Your task to perform on an android device: delete a single message in the gmail app Image 0: 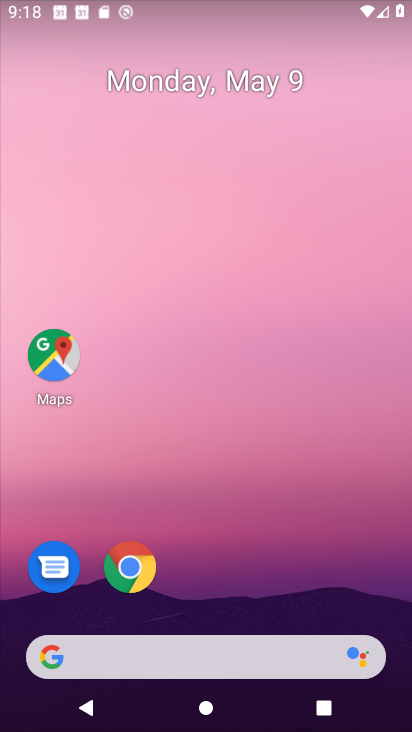
Step 0: drag from (205, 566) to (251, 142)
Your task to perform on an android device: delete a single message in the gmail app Image 1: 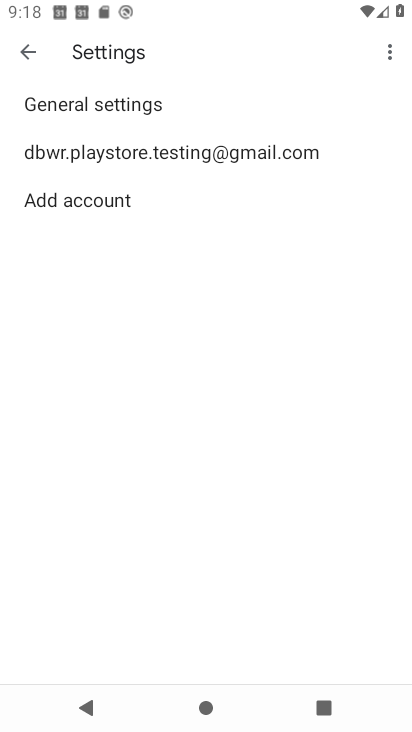
Step 1: click (17, 48)
Your task to perform on an android device: delete a single message in the gmail app Image 2: 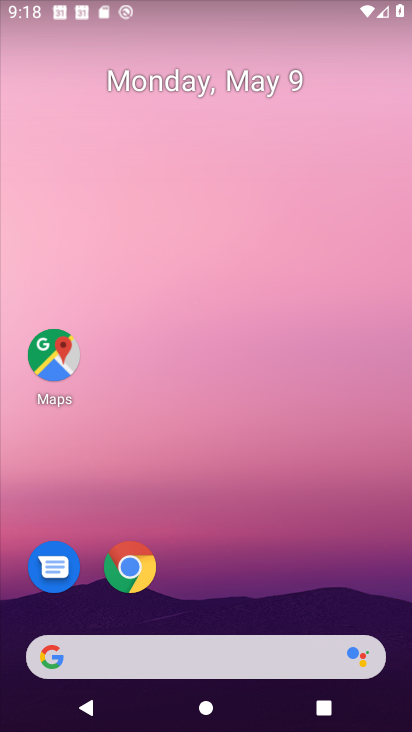
Step 2: drag from (211, 571) to (289, 80)
Your task to perform on an android device: delete a single message in the gmail app Image 3: 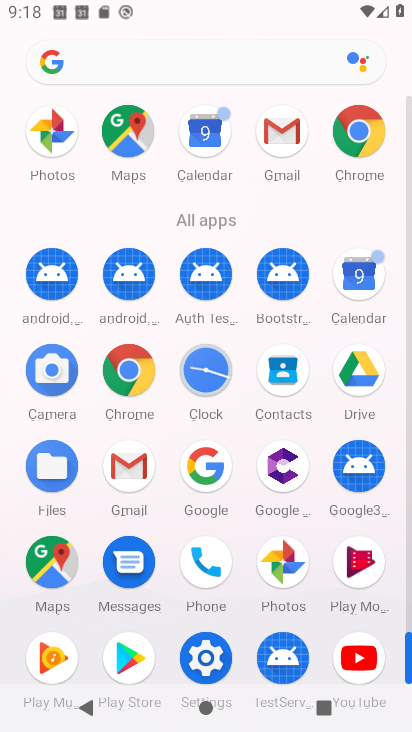
Step 3: click (127, 474)
Your task to perform on an android device: delete a single message in the gmail app Image 4: 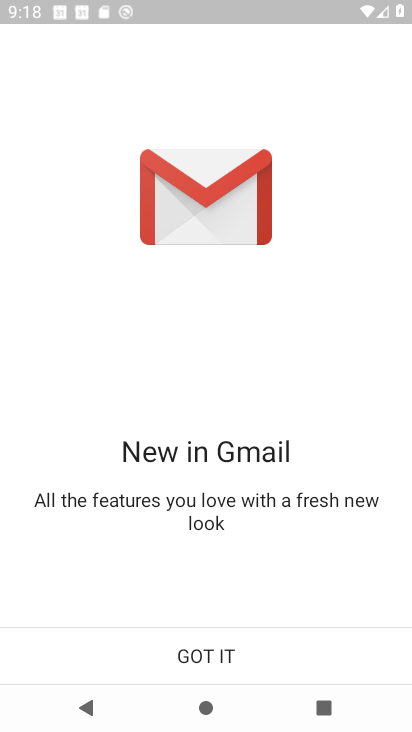
Step 4: click (192, 650)
Your task to perform on an android device: delete a single message in the gmail app Image 5: 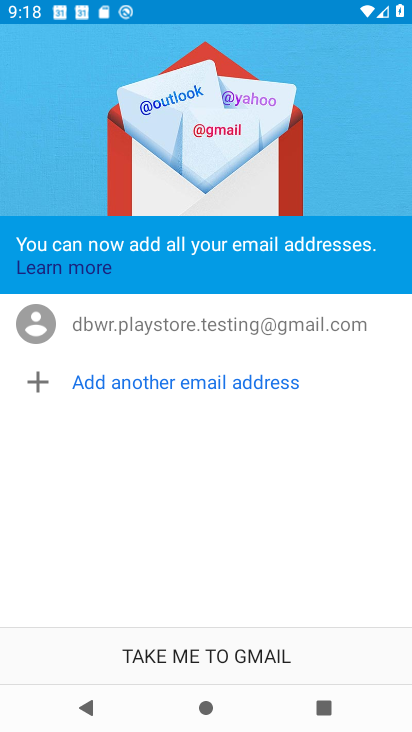
Step 5: click (199, 655)
Your task to perform on an android device: delete a single message in the gmail app Image 6: 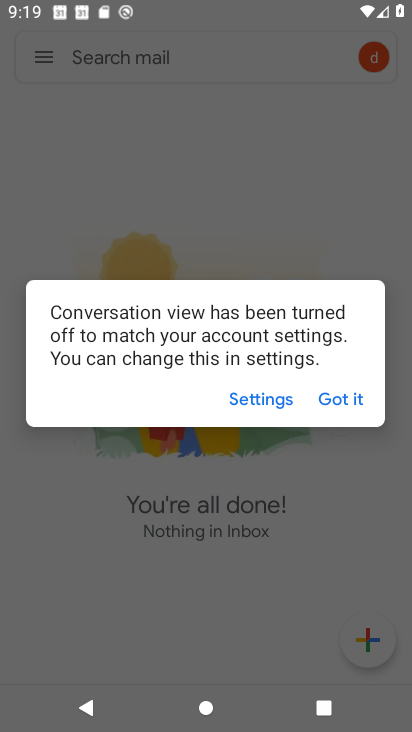
Step 6: click (342, 403)
Your task to perform on an android device: delete a single message in the gmail app Image 7: 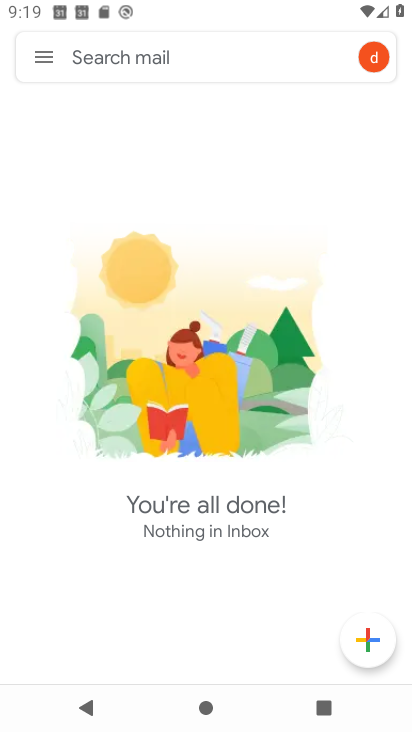
Step 7: task complete